Your task to perform on an android device: Go to privacy settings Image 0: 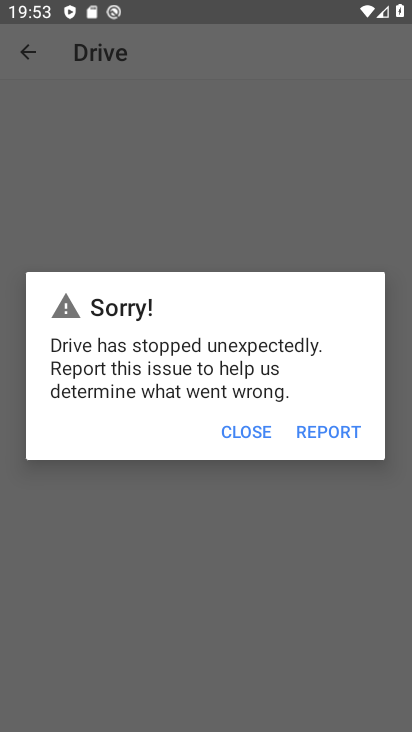
Step 0: click (243, 425)
Your task to perform on an android device: Go to privacy settings Image 1: 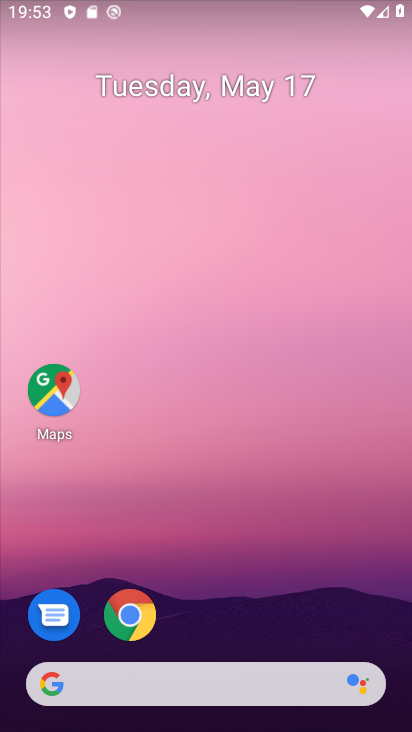
Step 1: drag from (200, 636) to (267, 53)
Your task to perform on an android device: Go to privacy settings Image 2: 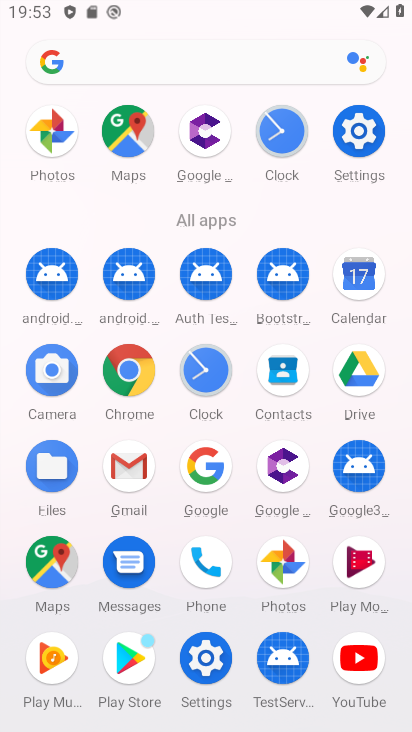
Step 2: click (367, 130)
Your task to perform on an android device: Go to privacy settings Image 3: 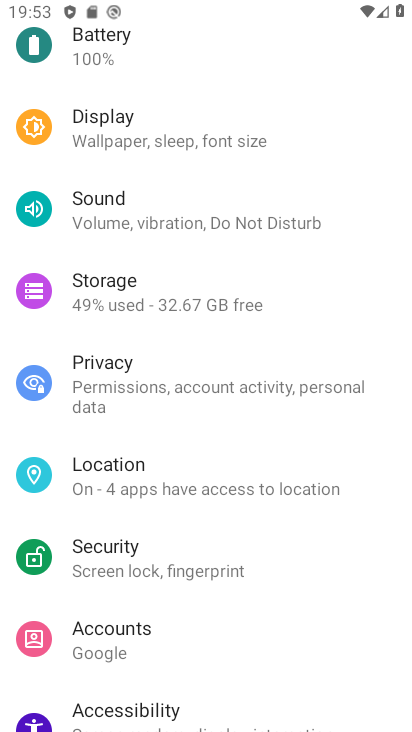
Step 3: click (157, 375)
Your task to perform on an android device: Go to privacy settings Image 4: 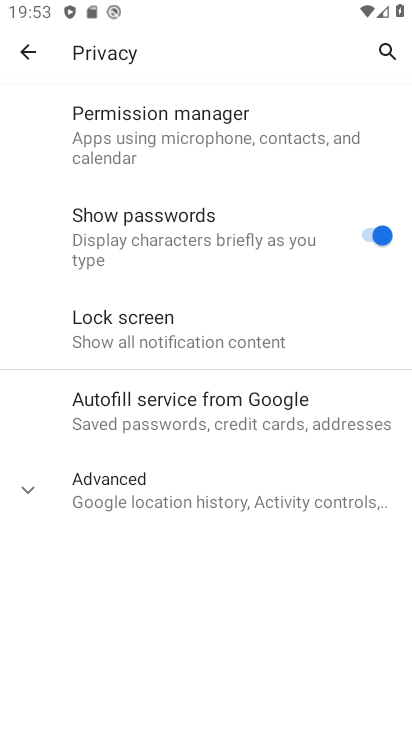
Step 4: task complete